Your task to perform on an android device: turn off picture-in-picture Image 0: 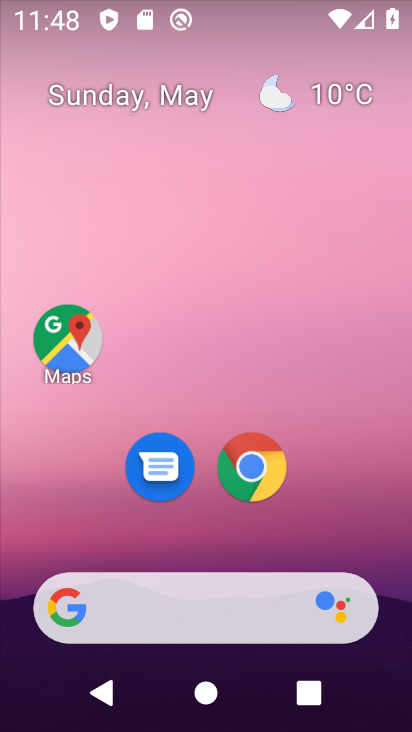
Step 0: drag from (367, 554) to (314, 168)
Your task to perform on an android device: turn off picture-in-picture Image 1: 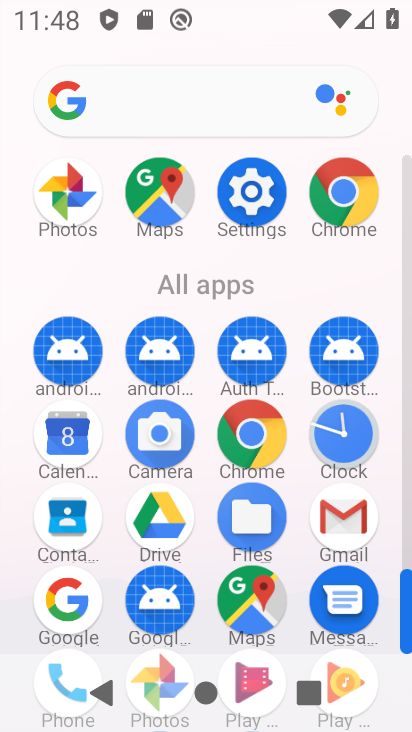
Step 1: click (244, 199)
Your task to perform on an android device: turn off picture-in-picture Image 2: 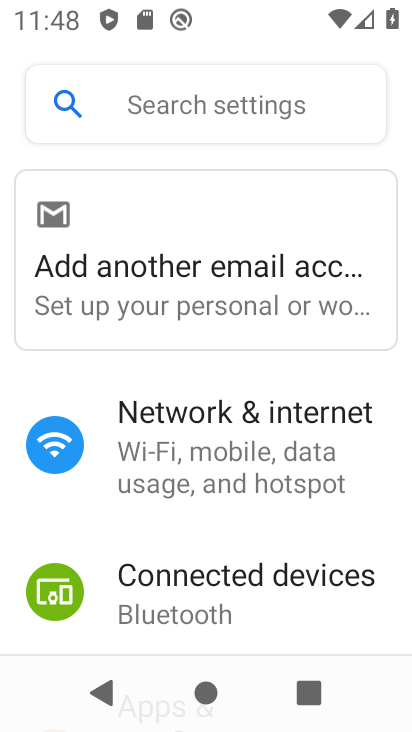
Step 2: drag from (254, 528) to (265, 183)
Your task to perform on an android device: turn off picture-in-picture Image 3: 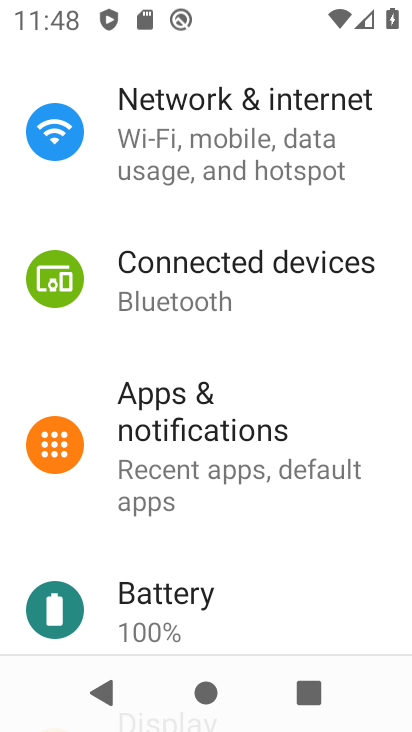
Step 3: drag from (287, 446) to (281, 231)
Your task to perform on an android device: turn off picture-in-picture Image 4: 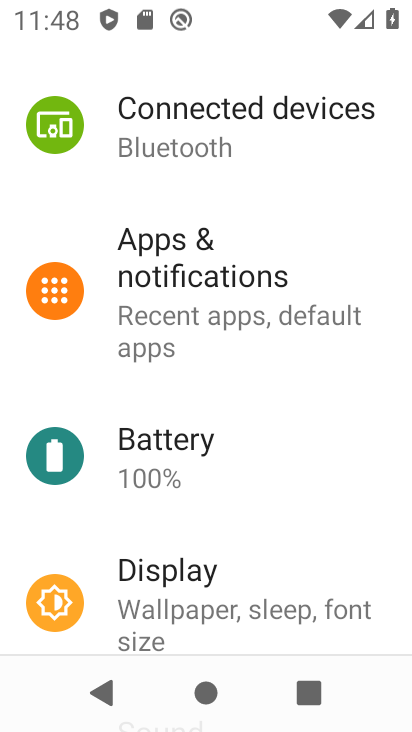
Step 4: drag from (271, 537) to (283, 223)
Your task to perform on an android device: turn off picture-in-picture Image 5: 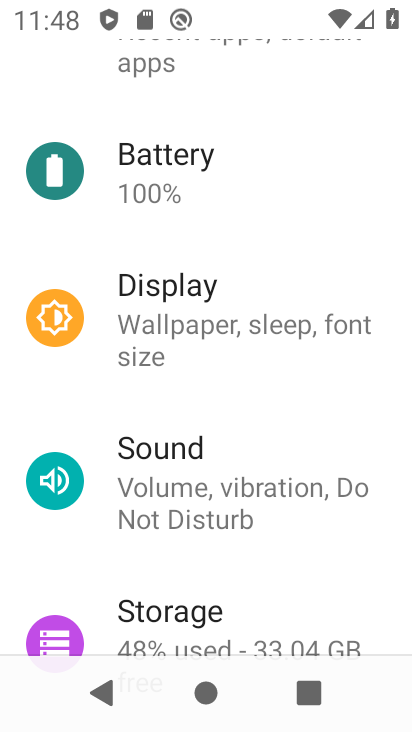
Step 5: drag from (248, 607) to (293, 284)
Your task to perform on an android device: turn off picture-in-picture Image 6: 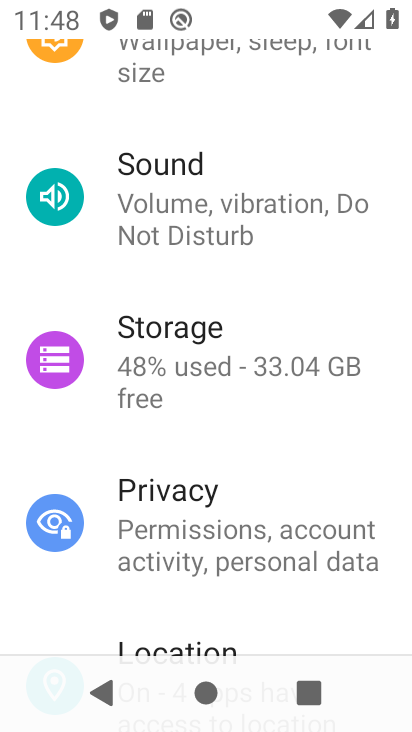
Step 6: drag from (317, 130) to (271, 528)
Your task to perform on an android device: turn off picture-in-picture Image 7: 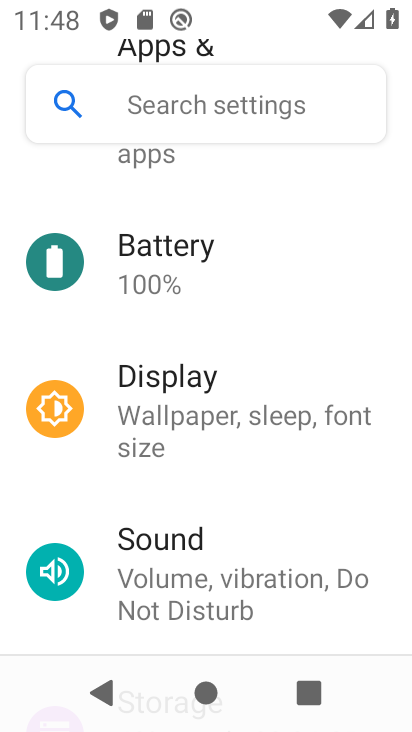
Step 7: drag from (267, 243) to (320, 602)
Your task to perform on an android device: turn off picture-in-picture Image 8: 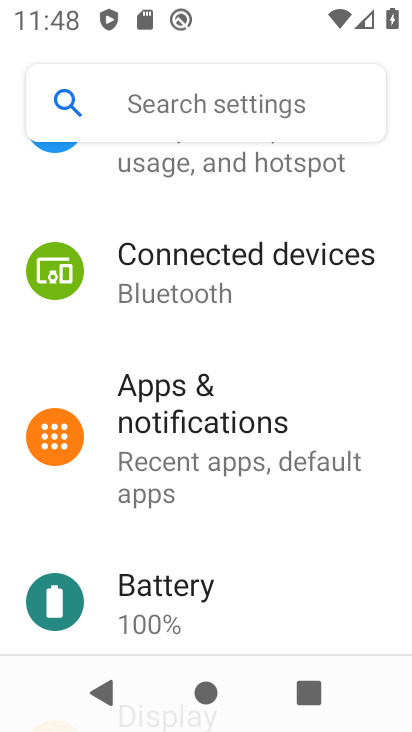
Step 8: drag from (248, 296) to (281, 548)
Your task to perform on an android device: turn off picture-in-picture Image 9: 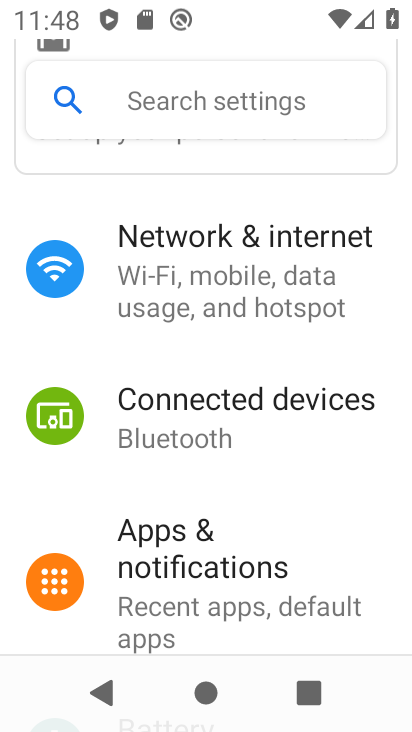
Step 9: click (255, 573)
Your task to perform on an android device: turn off picture-in-picture Image 10: 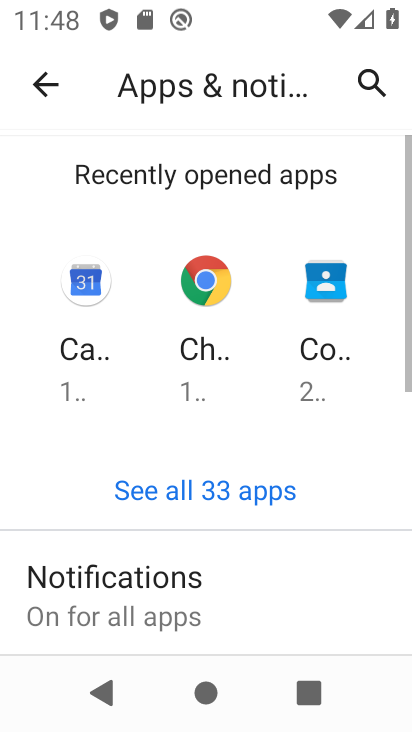
Step 10: drag from (289, 626) to (290, 251)
Your task to perform on an android device: turn off picture-in-picture Image 11: 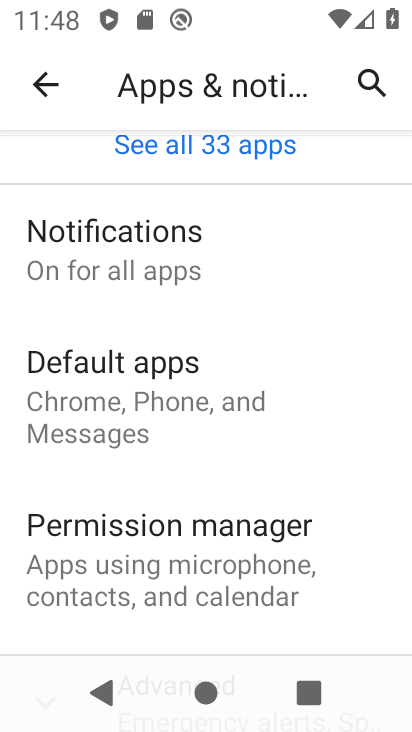
Step 11: drag from (260, 583) to (259, 251)
Your task to perform on an android device: turn off picture-in-picture Image 12: 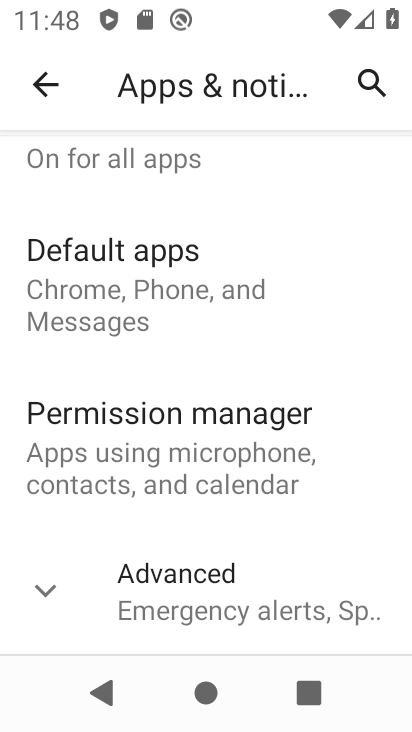
Step 12: click (209, 606)
Your task to perform on an android device: turn off picture-in-picture Image 13: 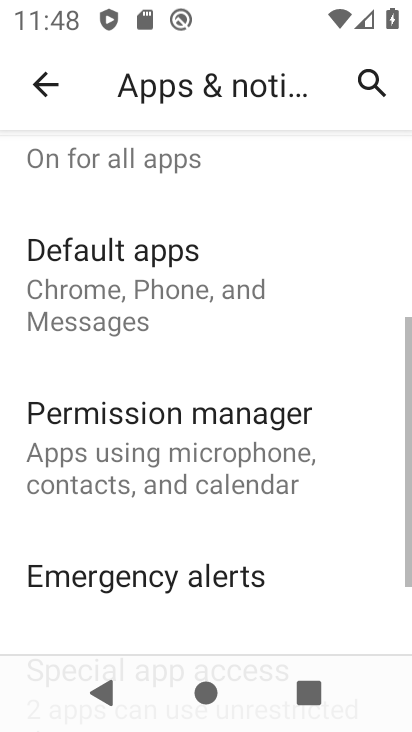
Step 13: drag from (254, 637) to (282, 270)
Your task to perform on an android device: turn off picture-in-picture Image 14: 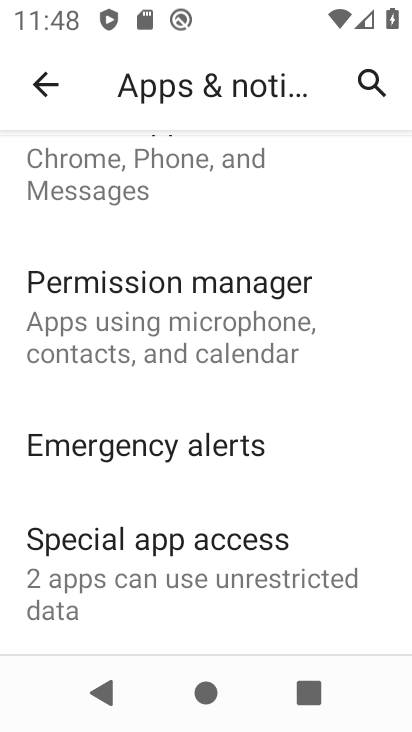
Step 14: click (196, 579)
Your task to perform on an android device: turn off picture-in-picture Image 15: 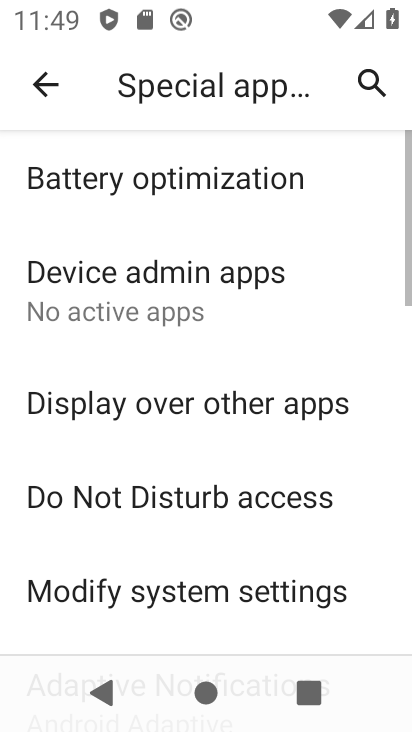
Step 15: drag from (220, 630) to (270, 279)
Your task to perform on an android device: turn off picture-in-picture Image 16: 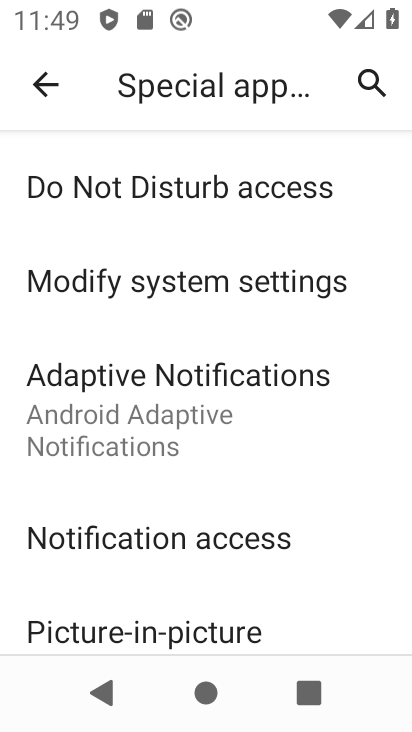
Step 16: drag from (258, 580) to (278, 322)
Your task to perform on an android device: turn off picture-in-picture Image 17: 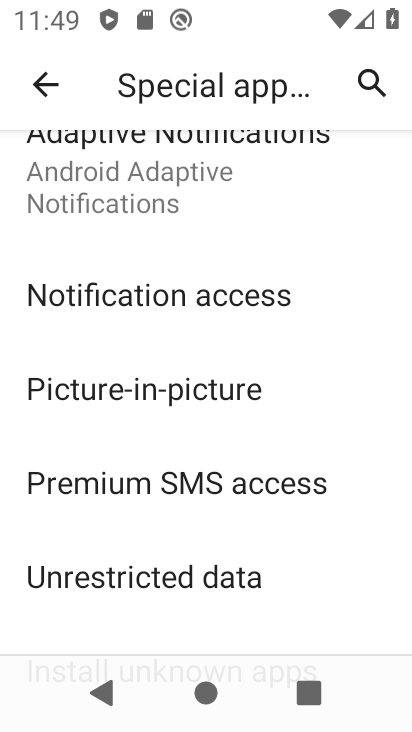
Step 17: click (226, 379)
Your task to perform on an android device: turn off picture-in-picture Image 18: 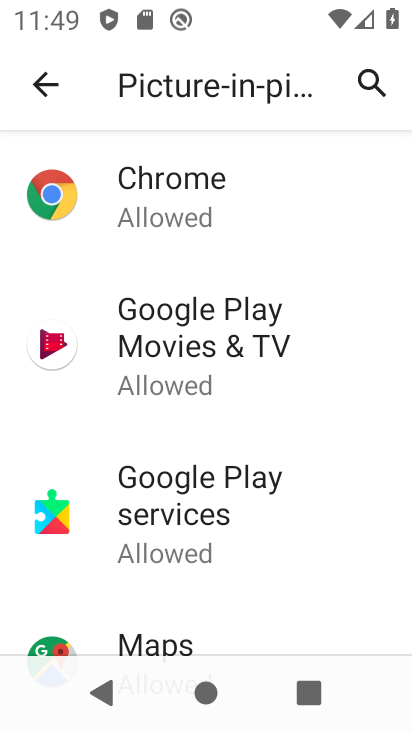
Step 18: click (218, 226)
Your task to perform on an android device: turn off picture-in-picture Image 19: 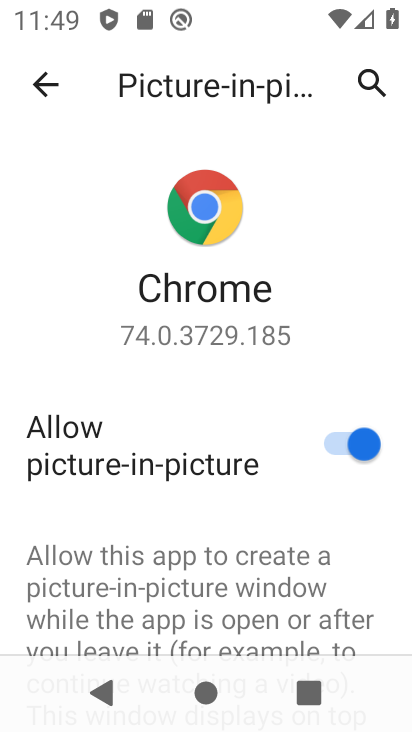
Step 19: click (332, 443)
Your task to perform on an android device: turn off picture-in-picture Image 20: 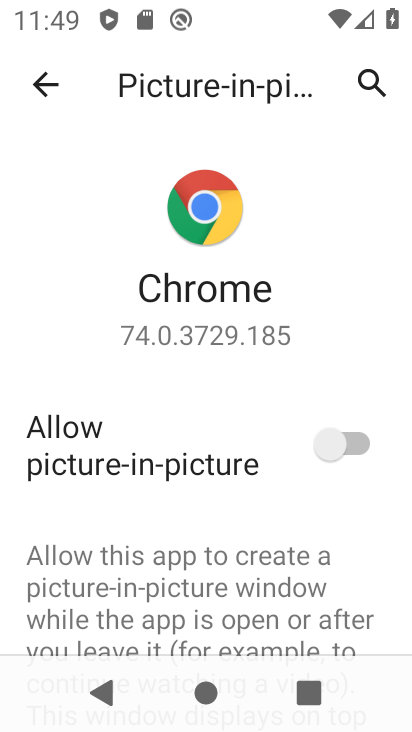
Step 20: task complete